Your task to perform on an android device: Go to ESPN.com Image 0: 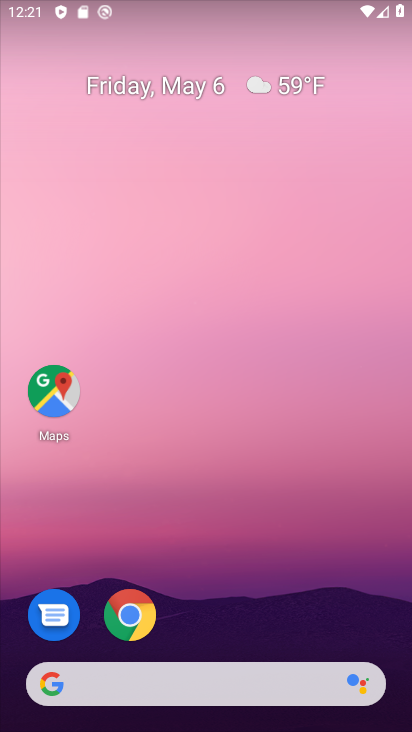
Step 0: click (274, 686)
Your task to perform on an android device: Go to ESPN.com Image 1: 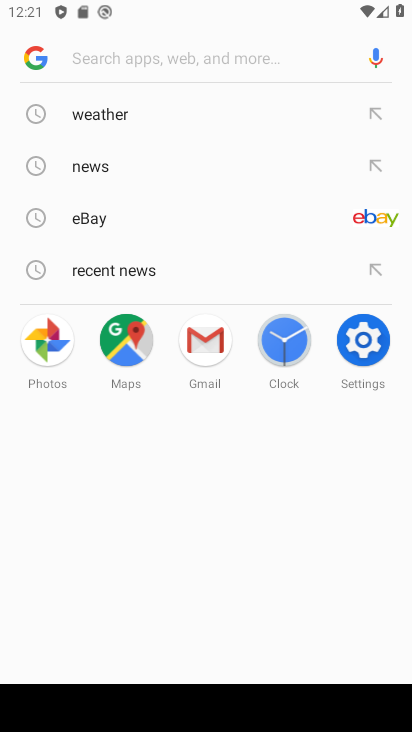
Step 1: type "espn.com"
Your task to perform on an android device: Go to ESPN.com Image 2: 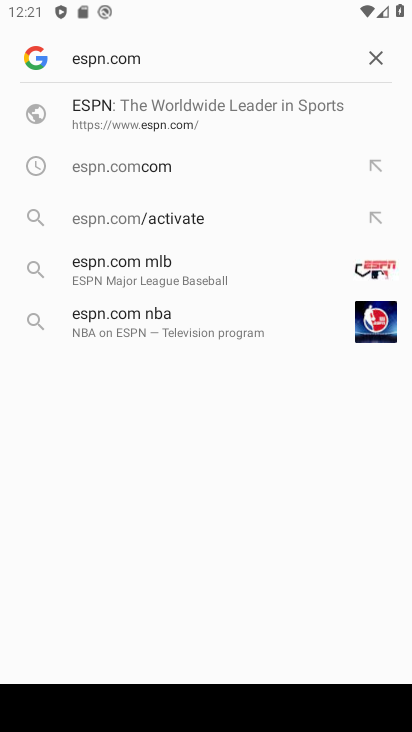
Step 2: click (231, 94)
Your task to perform on an android device: Go to ESPN.com Image 3: 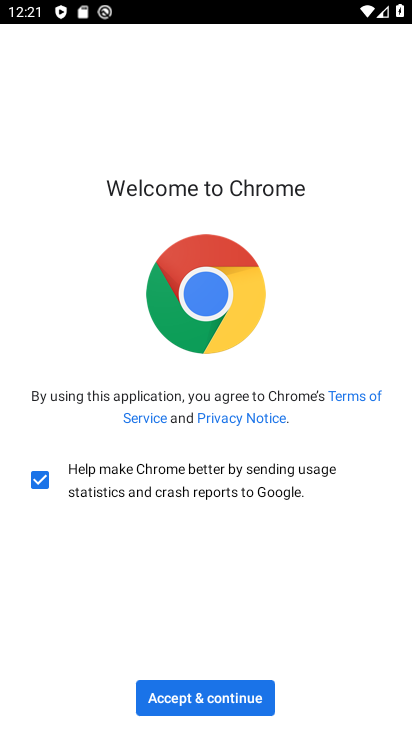
Step 3: click (238, 701)
Your task to perform on an android device: Go to ESPN.com Image 4: 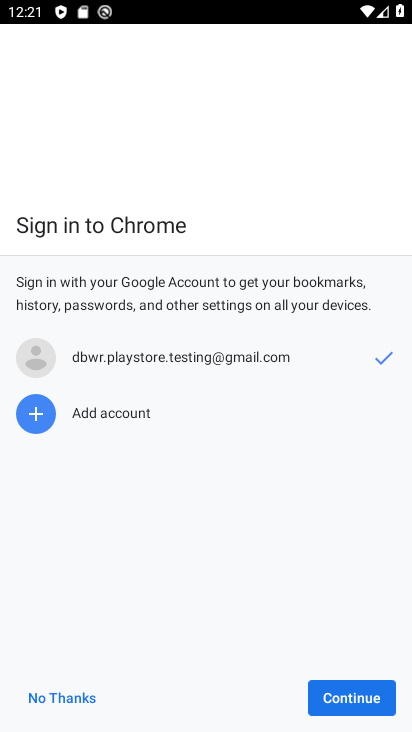
Step 4: click (330, 694)
Your task to perform on an android device: Go to ESPN.com Image 5: 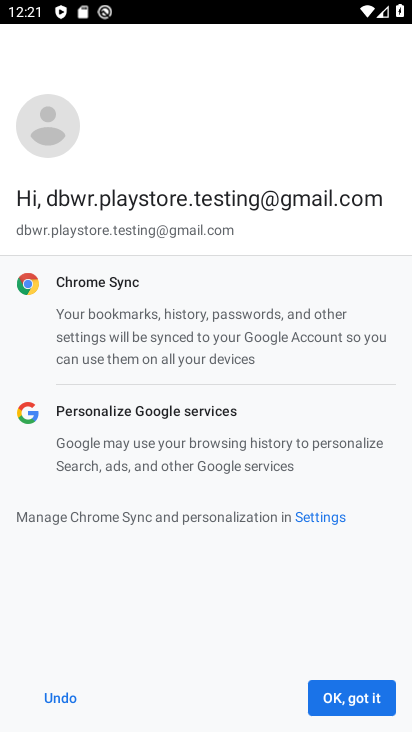
Step 5: click (337, 699)
Your task to perform on an android device: Go to ESPN.com Image 6: 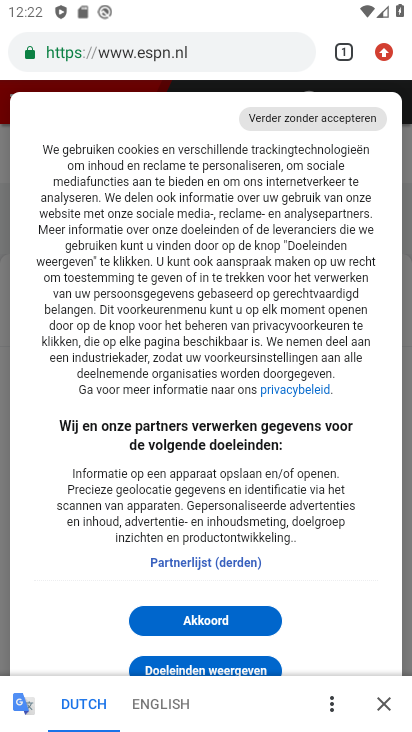
Step 6: task complete